Your task to perform on an android device: see sites visited before in the chrome app Image 0: 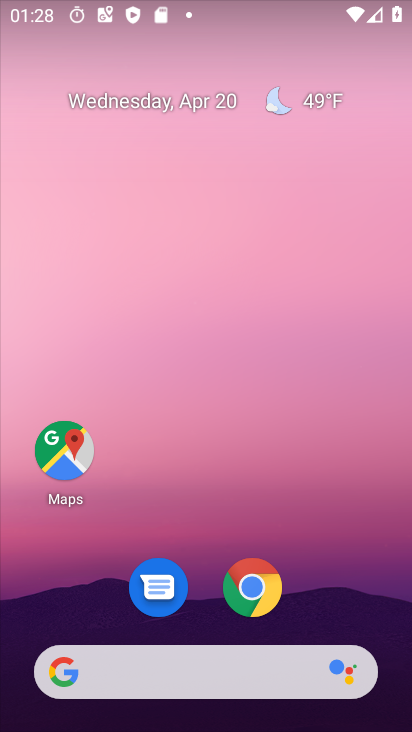
Step 0: click (252, 589)
Your task to perform on an android device: see sites visited before in the chrome app Image 1: 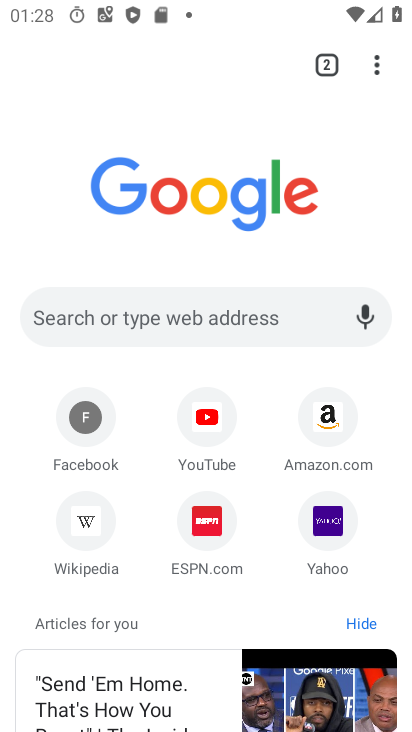
Step 1: click (380, 71)
Your task to perform on an android device: see sites visited before in the chrome app Image 2: 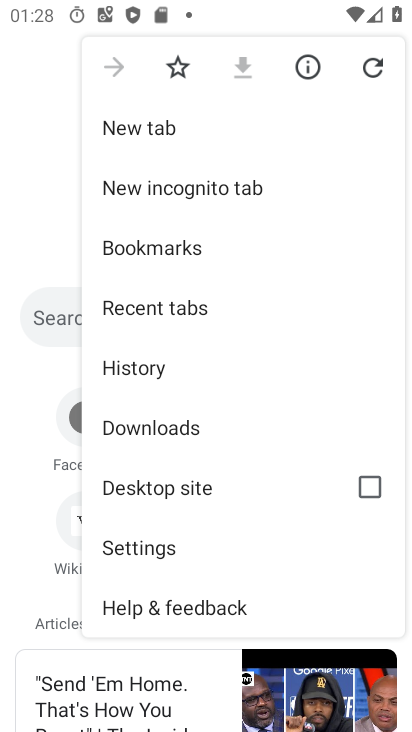
Step 2: click (106, 365)
Your task to perform on an android device: see sites visited before in the chrome app Image 3: 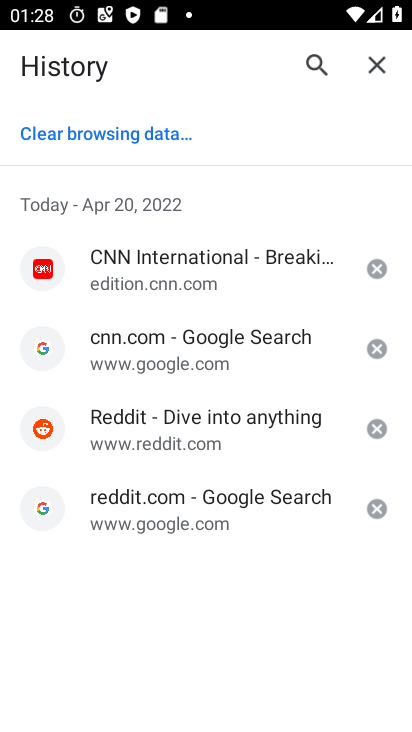
Step 3: task complete